Your task to perform on an android device: Go to CNN.com Image 0: 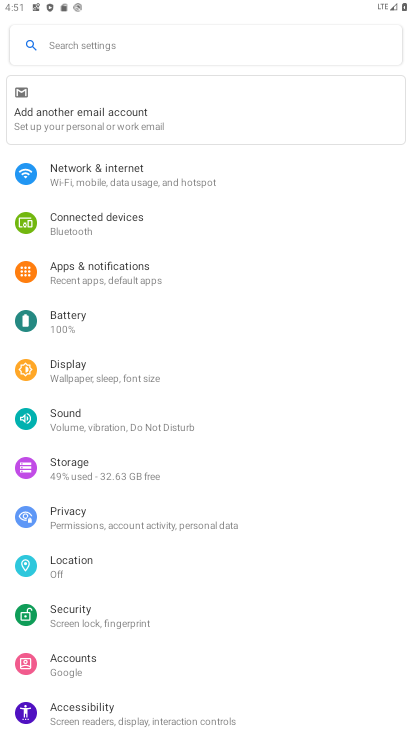
Step 0: press home button
Your task to perform on an android device: Go to CNN.com Image 1: 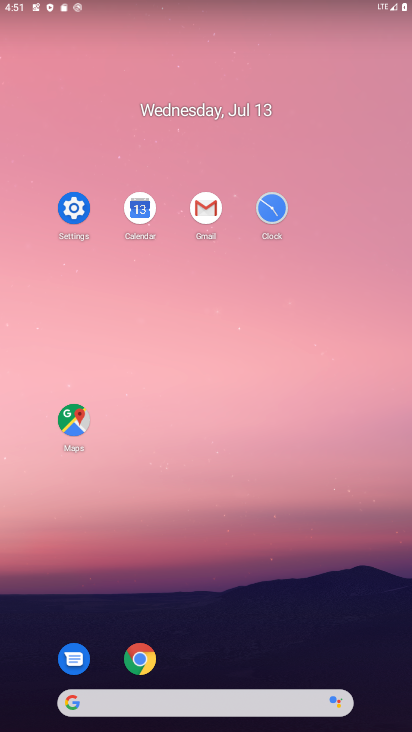
Step 1: click (140, 664)
Your task to perform on an android device: Go to CNN.com Image 2: 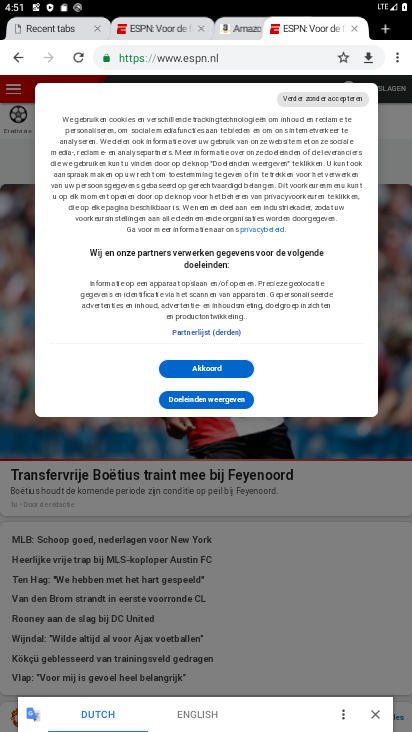
Step 2: click (391, 26)
Your task to perform on an android device: Go to CNN.com Image 3: 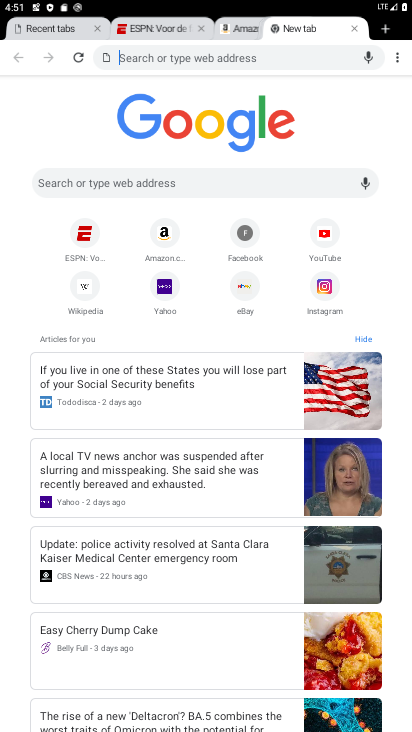
Step 3: click (131, 177)
Your task to perform on an android device: Go to CNN.com Image 4: 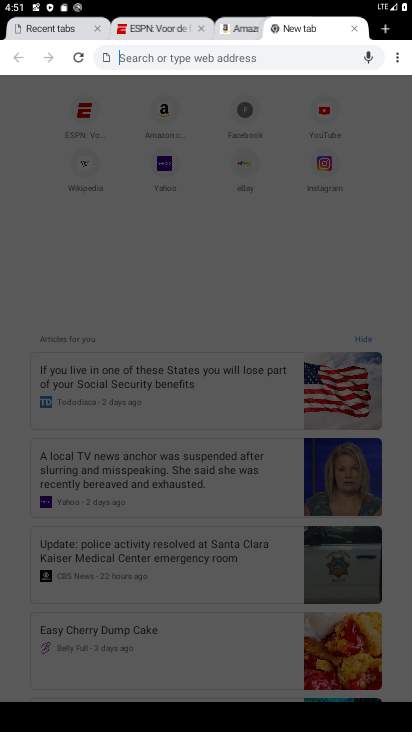
Step 4: type "cnn"
Your task to perform on an android device: Go to CNN.com Image 5: 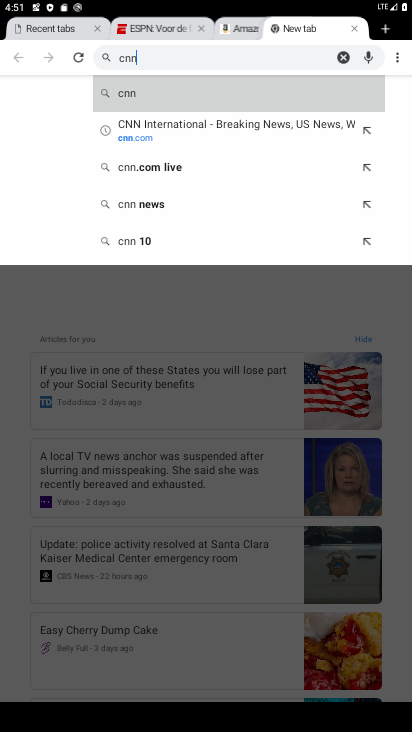
Step 5: click (163, 92)
Your task to perform on an android device: Go to CNN.com Image 6: 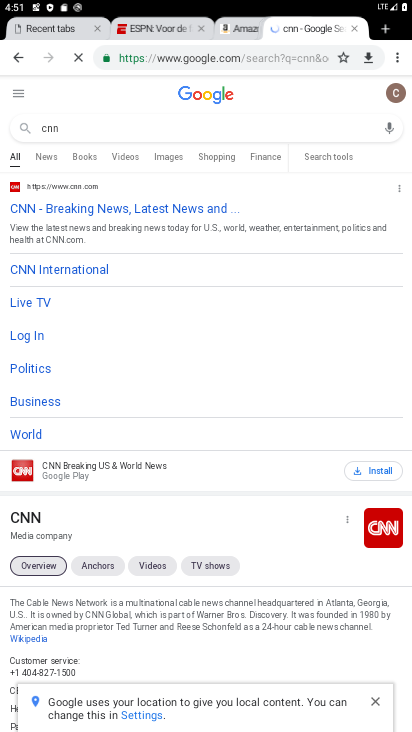
Step 6: click (116, 208)
Your task to perform on an android device: Go to CNN.com Image 7: 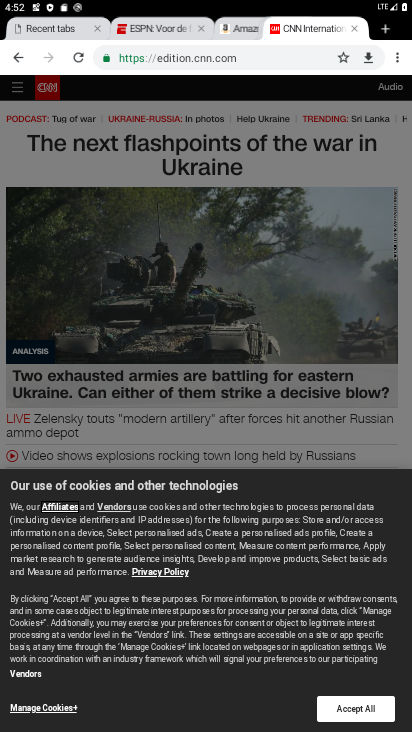
Step 7: task complete